Your task to perform on an android device: toggle airplane mode Image 0: 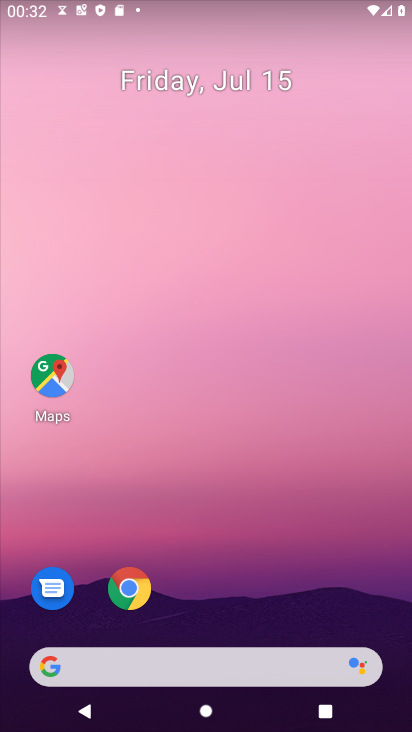
Step 0: drag from (225, 6) to (231, 669)
Your task to perform on an android device: toggle airplane mode Image 1: 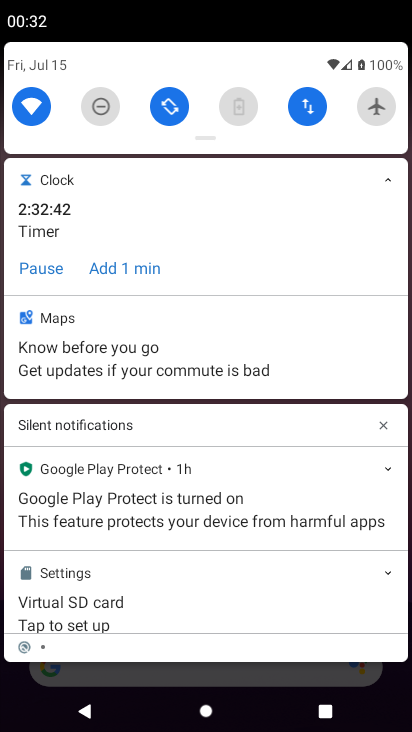
Step 1: click (371, 100)
Your task to perform on an android device: toggle airplane mode Image 2: 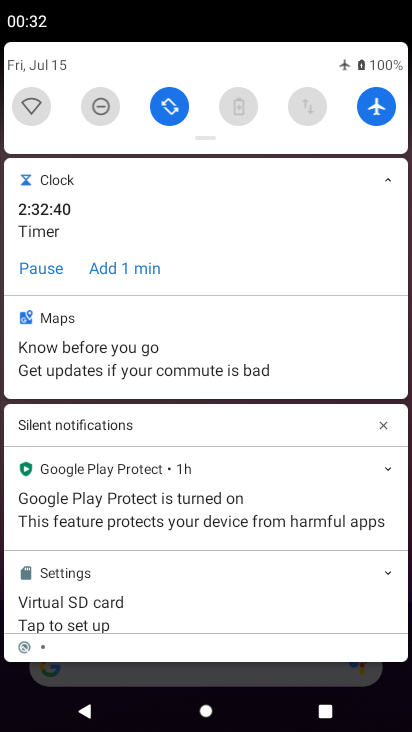
Step 2: task complete